Your task to perform on an android device: see creations saved in the google photos Image 0: 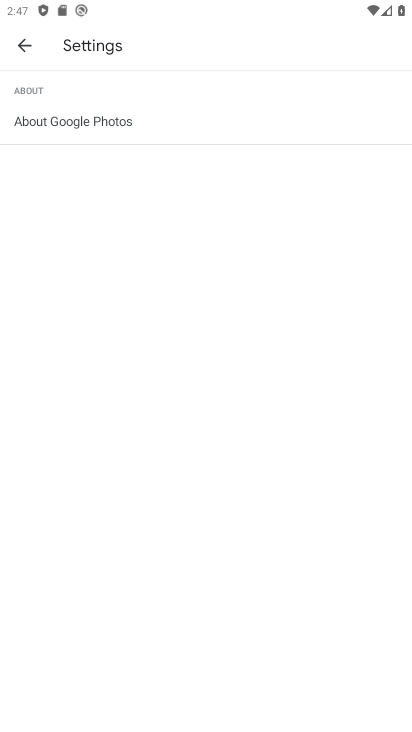
Step 0: click (33, 49)
Your task to perform on an android device: see creations saved in the google photos Image 1: 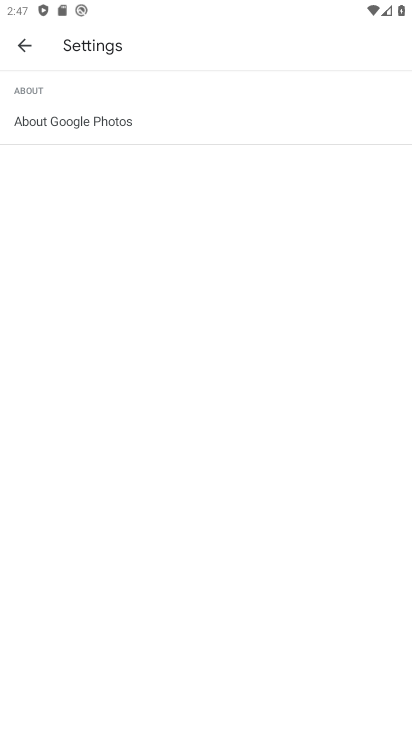
Step 1: click (32, 48)
Your task to perform on an android device: see creations saved in the google photos Image 2: 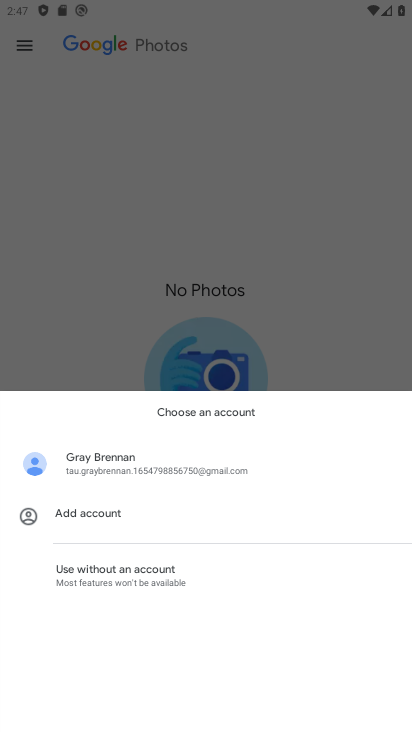
Step 2: press back button
Your task to perform on an android device: see creations saved in the google photos Image 3: 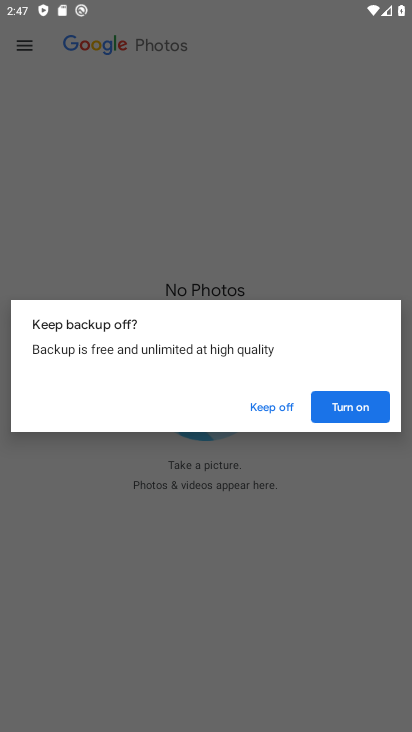
Step 3: click (239, 408)
Your task to perform on an android device: see creations saved in the google photos Image 4: 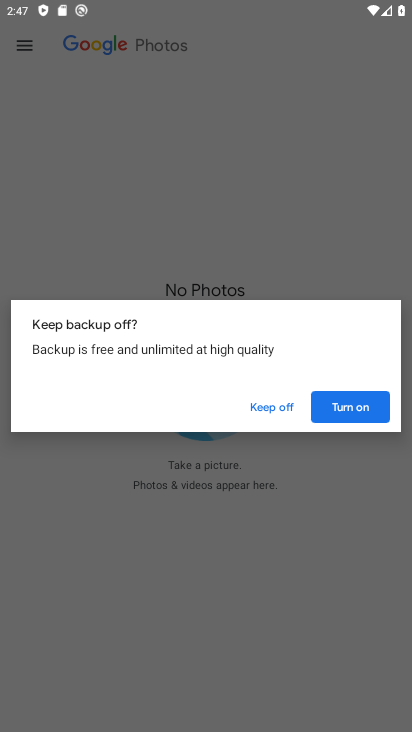
Step 4: click (241, 405)
Your task to perform on an android device: see creations saved in the google photos Image 5: 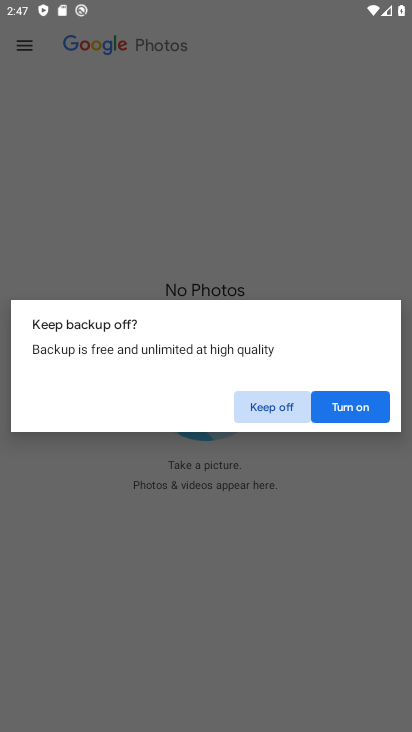
Step 5: click (241, 405)
Your task to perform on an android device: see creations saved in the google photos Image 6: 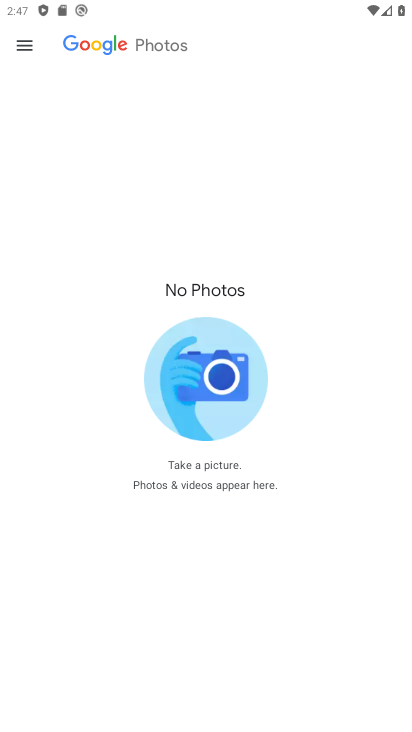
Step 6: click (245, 412)
Your task to perform on an android device: see creations saved in the google photos Image 7: 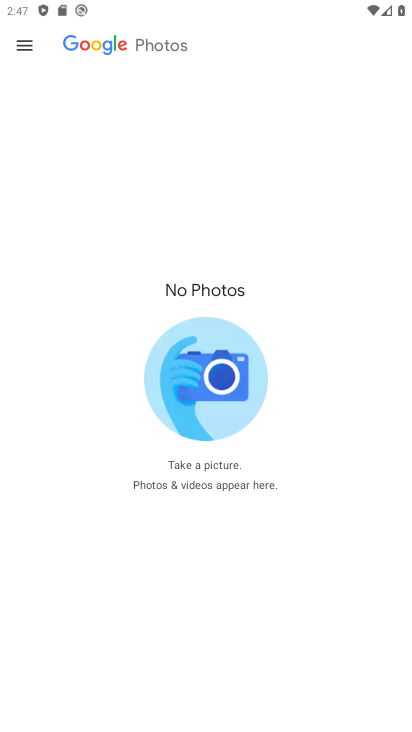
Step 7: click (245, 412)
Your task to perform on an android device: see creations saved in the google photos Image 8: 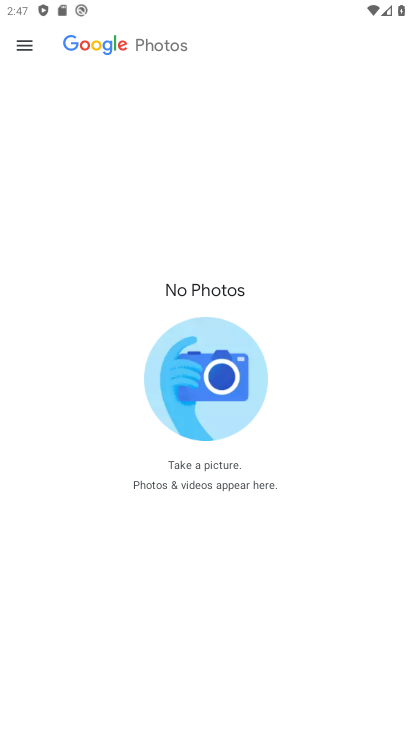
Step 8: press back button
Your task to perform on an android device: see creations saved in the google photos Image 9: 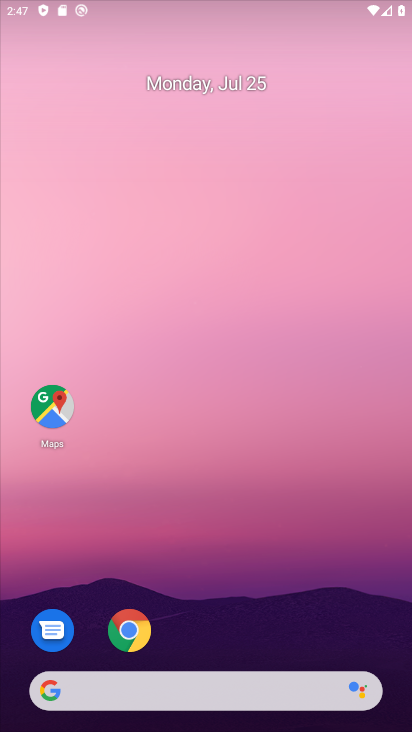
Step 9: drag from (224, 432) to (197, 194)
Your task to perform on an android device: see creations saved in the google photos Image 10: 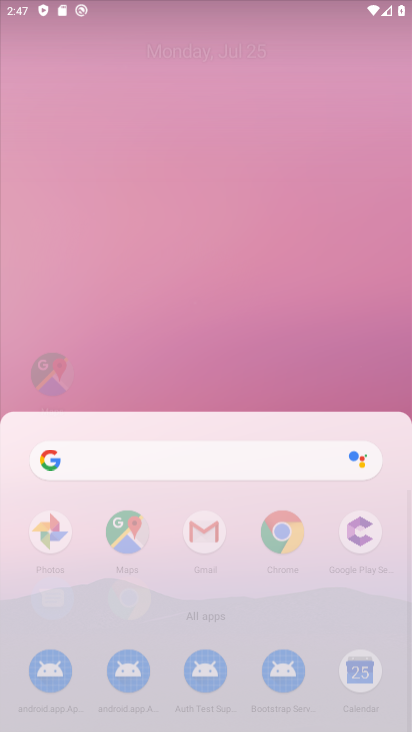
Step 10: drag from (194, 507) to (164, 201)
Your task to perform on an android device: see creations saved in the google photos Image 11: 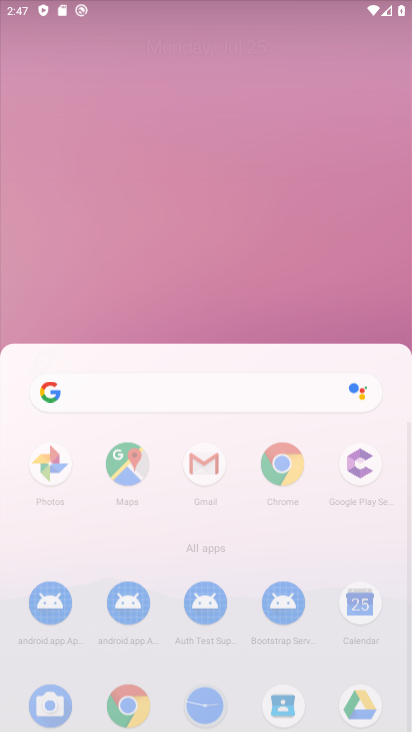
Step 11: drag from (216, 411) to (216, 156)
Your task to perform on an android device: see creations saved in the google photos Image 12: 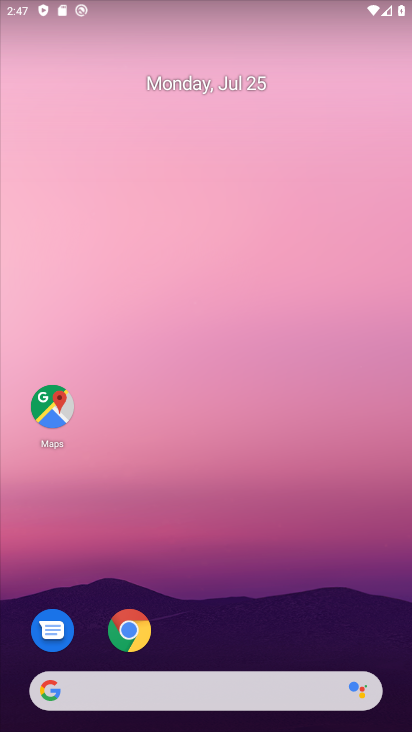
Step 12: drag from (230, 485) to (181, 158)
Your task to perform on an android device: see creations saved in the google photos Image 13: 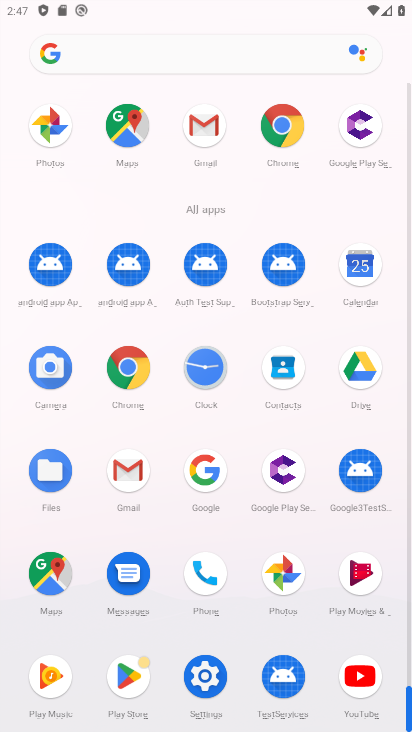
Step 13: drag from (203, 572) to (183, 189)
Your task to perform on an android device: see creations saved in the google photos Image 14: 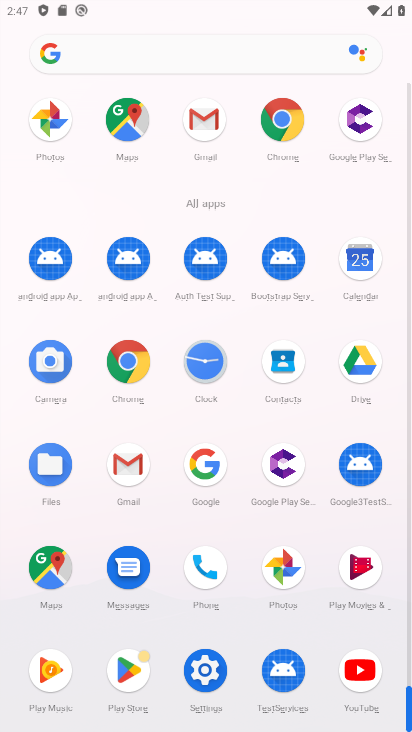
Step 14: click (278, 562)
Your task to perform on an android device: see creations saved in the google photos Image 15: 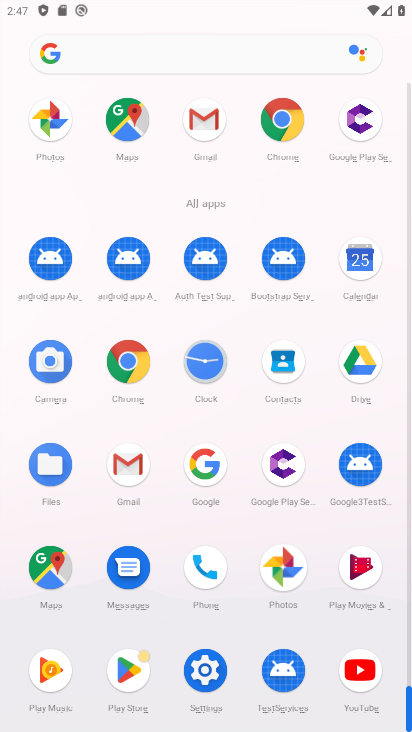
Step 15: click (279, 562)
Your task to perform on an android device: see creations saved in the google photos Image 16: 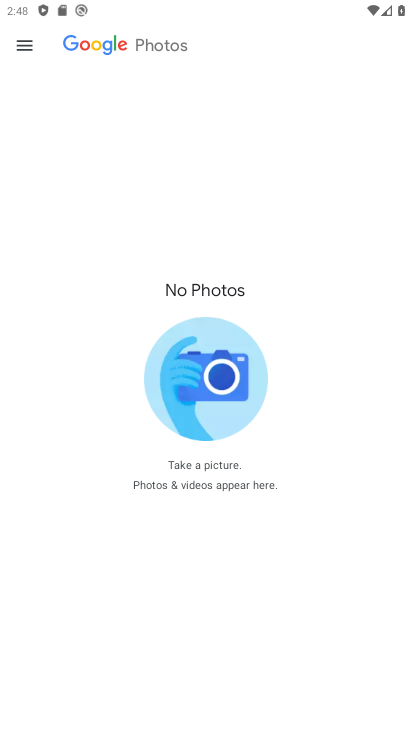
Step 16: click (36, 52)
Your task to perform on an android device: see creations saved in the google photos Image 17: 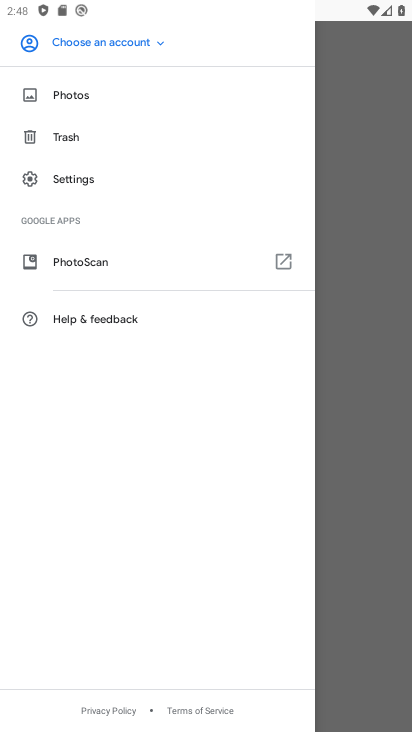
Step 17: click (380, 418)
Your task to perform on an android device: see creations saved in the google photos Image 18: 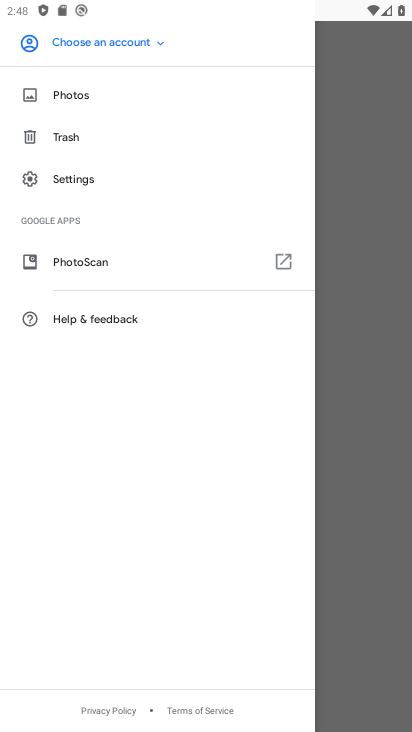
Step 18: click (380, 418)
Your task to perform on an android device: see creations saved in the google photos Image 19: 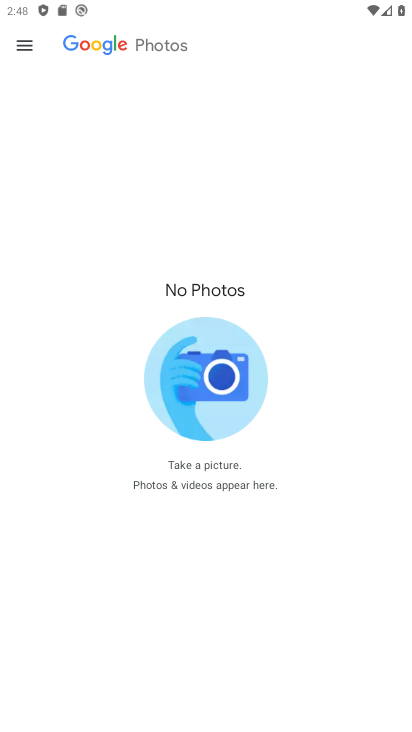
Step 19: press back button
Your task to perform on an android device: see creations saved in the google photos Image 20: 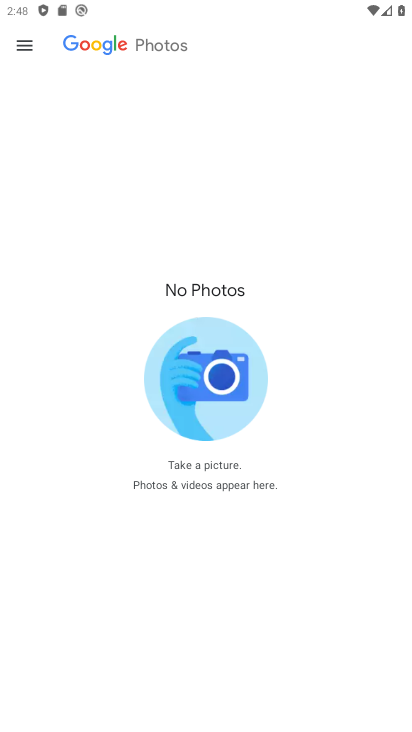
Step 20: press back button
Your task to perform on an android device: see creations saved in the google photos Image 21: 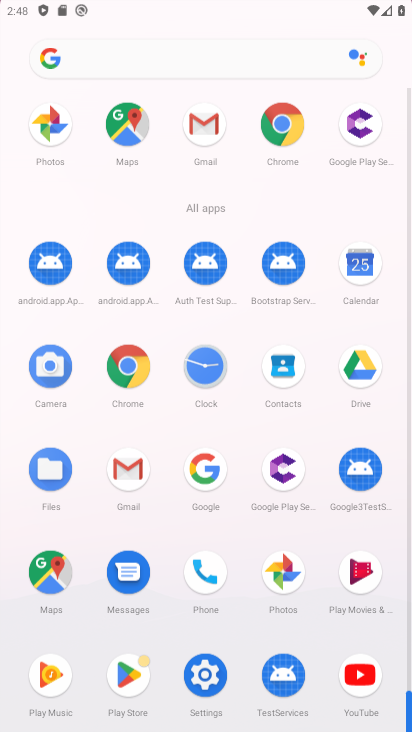
Step 21: press back button
Your task to perform on an android device: see creations saved in the google photos Image 22: 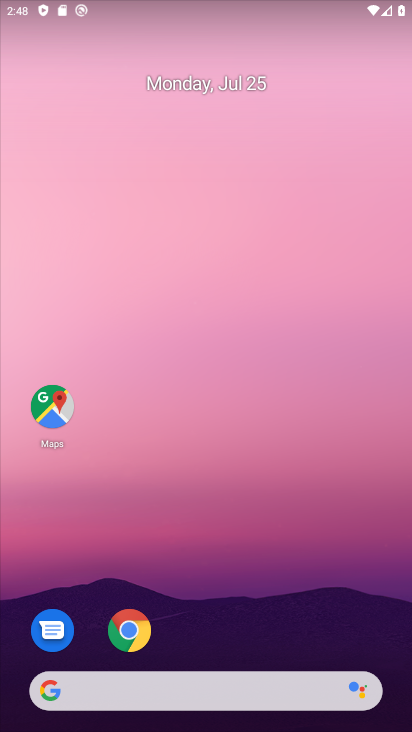
Step 22: drag from (314, 631) to (319, 234)
Your task to perform on an android device: see creations saved in the google photos Image 23: 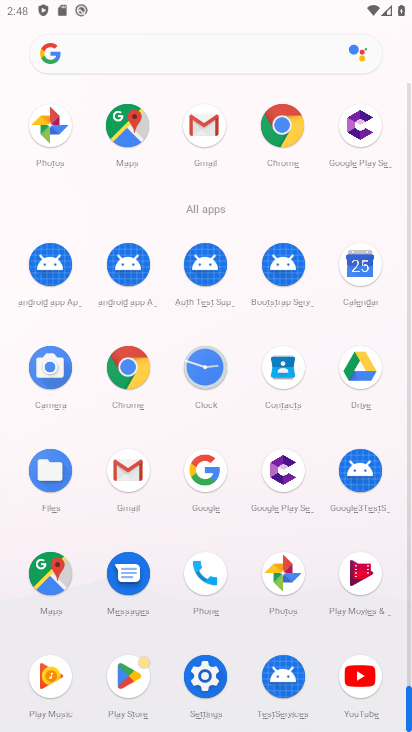
Step 23: click (281, 563)
Your task to perform on an android device: see creations saved in the google photos Image 24: 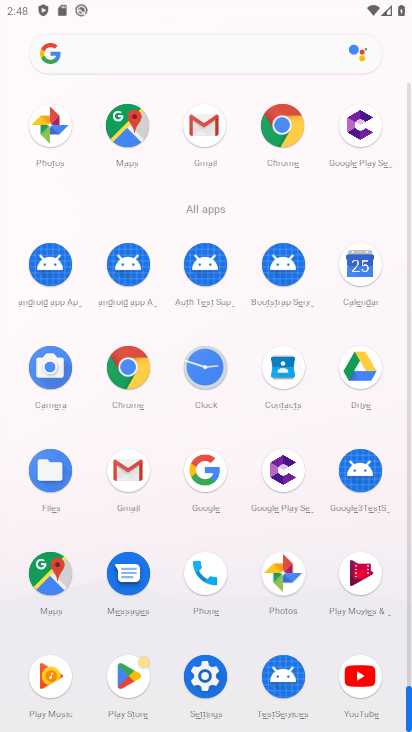
Step 24: click (281, 564)
Your task to perform on an android device: see creations saved in the google photos Image 25: 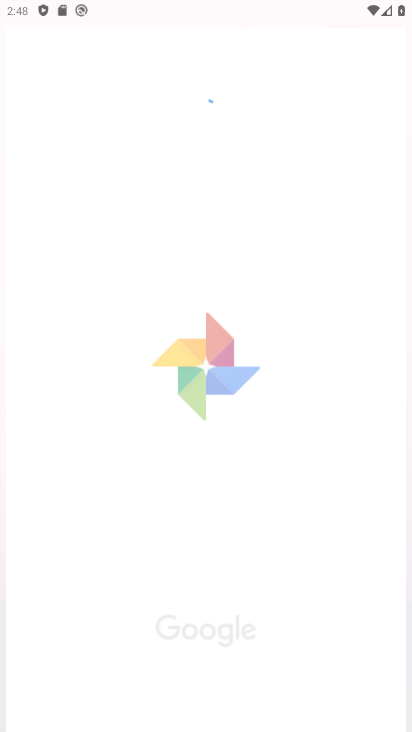
Step 25: click (284, 573)
Your task to perform on an android device: see creations saved in the google photos Image 26: 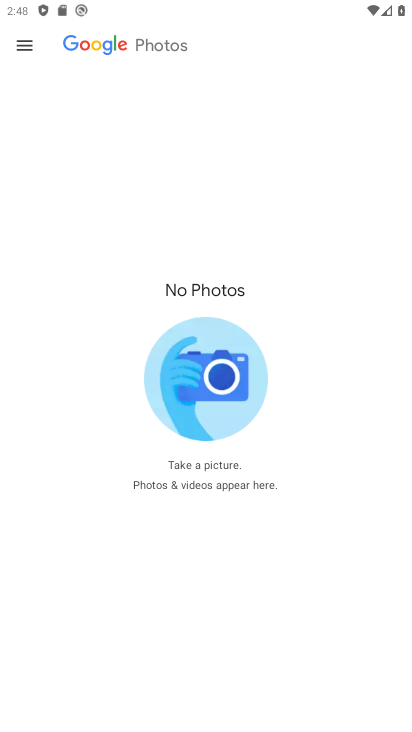
Step 26: click (28, 47)
Your task to perform on an android device: see creations saved in the google photos Image 27: 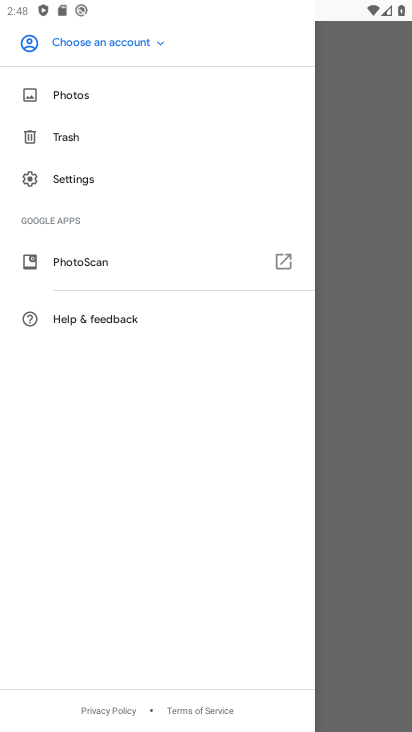
Step 27: click (363, 408)
Your task to perform on an android device: see creations saved in the google photos Image 28: 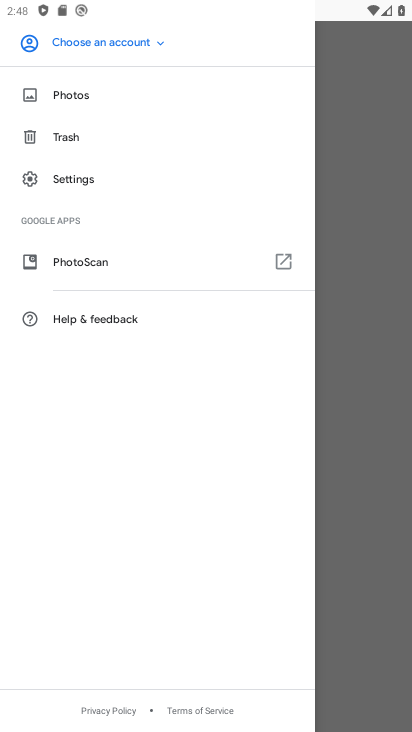
Step 28: click (364, 407)
Your task to perform on an android device: see creations saved in the google photos Image 29: 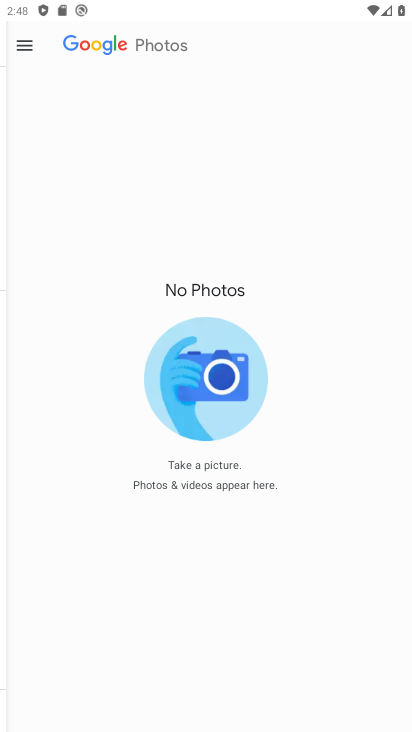
Step 29: click (364, 407)
Your task to perform on an android device: see creations saved in the google photos Image 30: 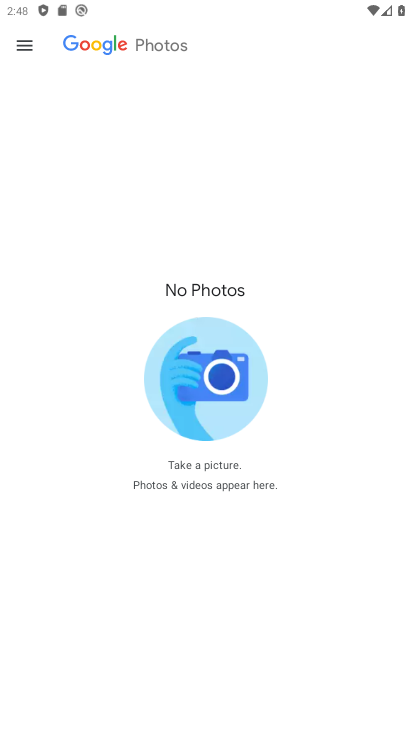
Step 30: click (366, 407)
Your task to perform on an android device: see creations saved in the google photos Image 31: 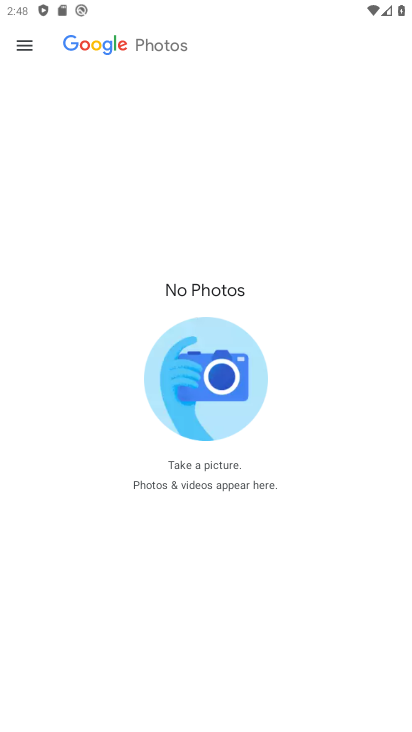
Step 31: click (211, 406)
Your task to perform on an android device: see creations saved in the google photos Image 32: 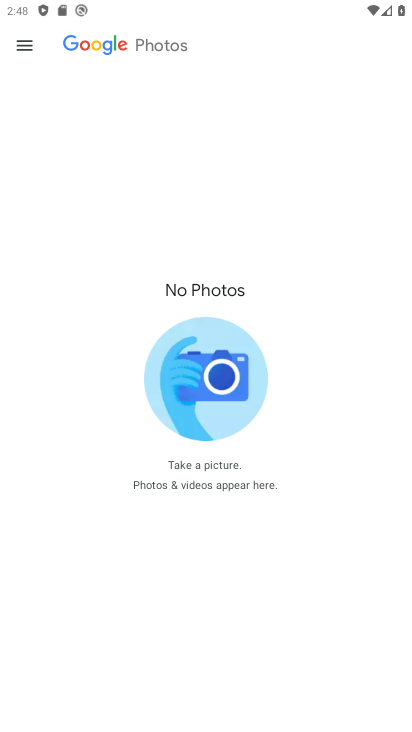
Step 32: click (211, 407)
Your task to perform on an android device: see creations saved in the google photos Image 33: 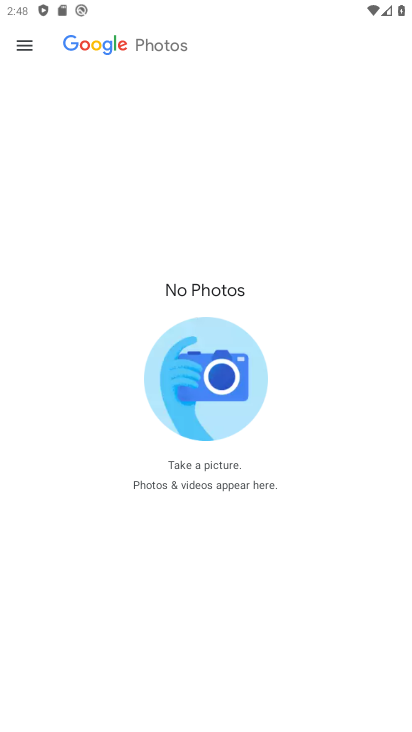
Step 33: click (210, 407)
Your task to perform on an android device: see creations saved in the google photos Image 34: 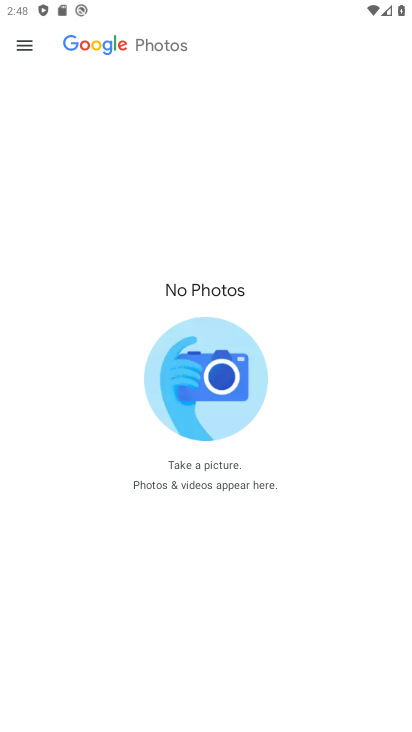
Step 34: click (24, 41)
Your task to perform on an android device: see creations saved in the google photos Image 35: 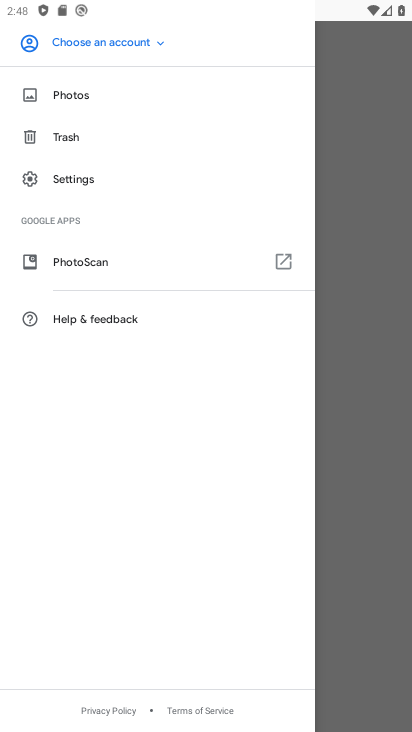
Step 35: click (361, 304)
Your task to perform on an android device: see creations saved in the google photos Image 36: 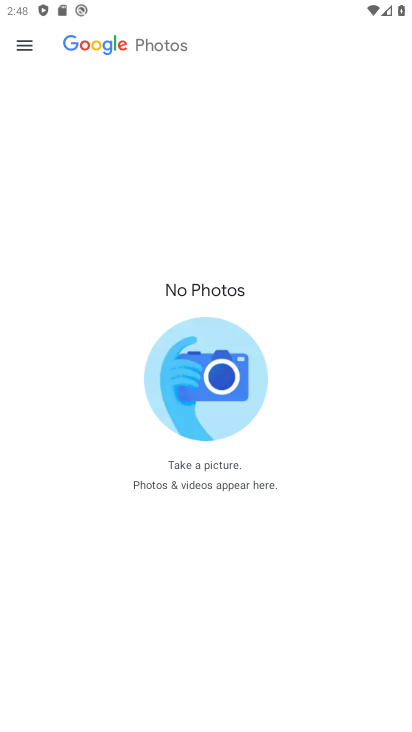
Step 36: task complete